Your task to perform on an android device: open a bookmark in the chrome app Image 0: 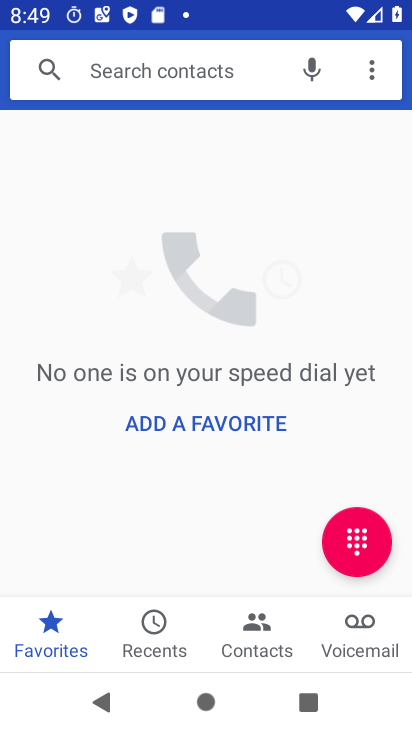
Step 0: press home button
Your task to perform on an android device: open a bookmark in the chrome app Image 1: 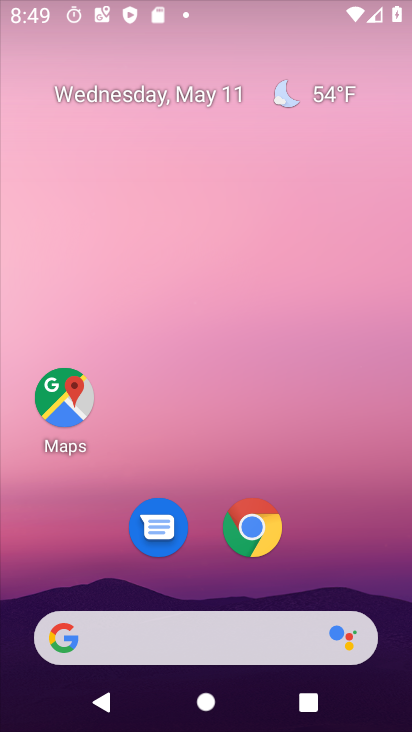
Step 1: drag from (208, 573) to (190, 209)
Your task to perform on an android device: open a bookmark in the chrome app Image 2: 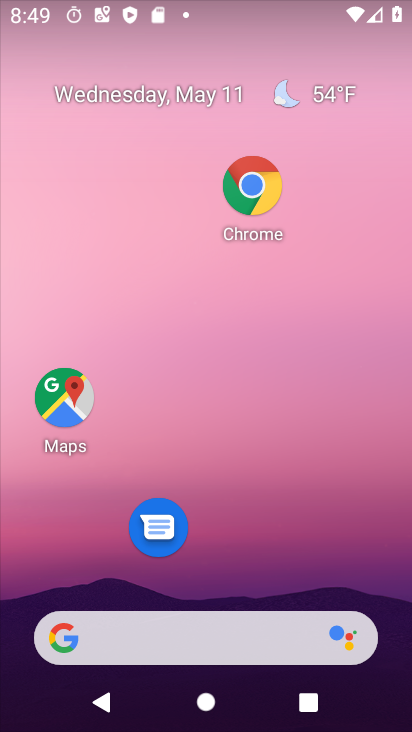
Step 2: click (254, 188)
Your task to perform on an android device: open a bookmark in the chrome app Image 3: 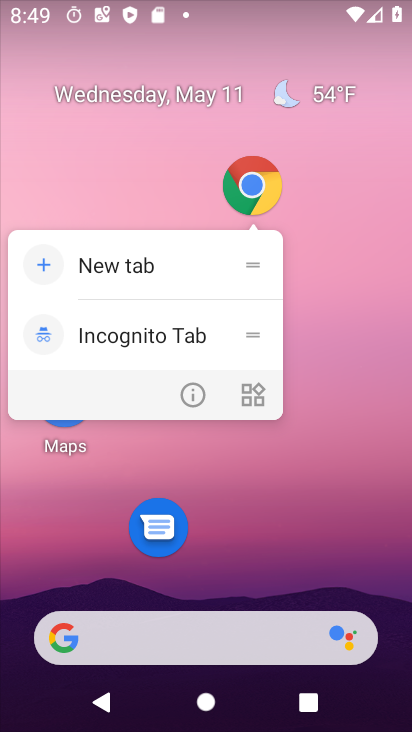
Step 3: click (253, 191)
Your task to perform on an android device: open a bookmark in the chrome app Image 4: 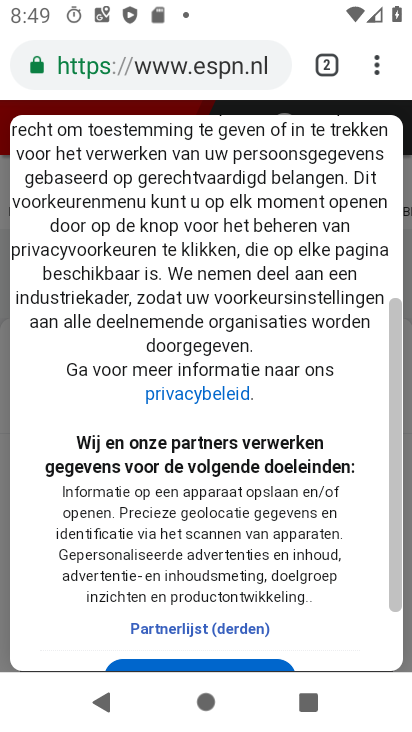
Step 4: click (370, 56)
Your task to perform on an android device: open a bookmark in the chrome app Image 5: 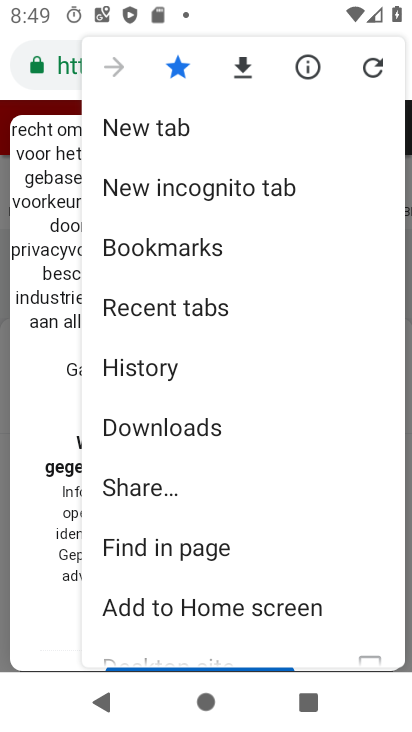
Step 5: click (175, 242)
Your task to perform on an android device: open a bookmark in the chrome app Image 6: 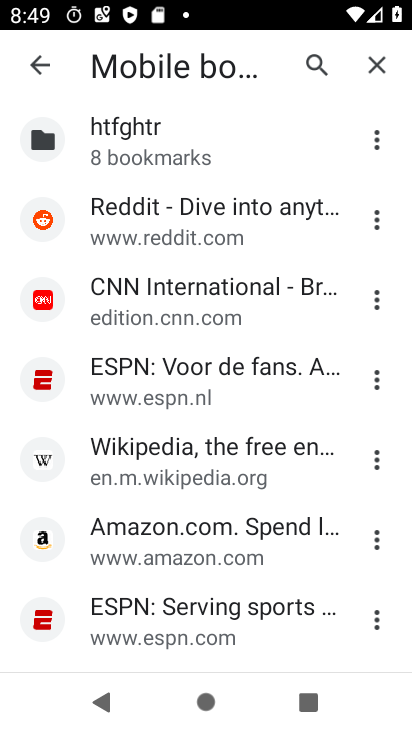
Step 6: click (170, 298)
Your task to perform on an android device: open a bookmark in the chrome app Image 7: 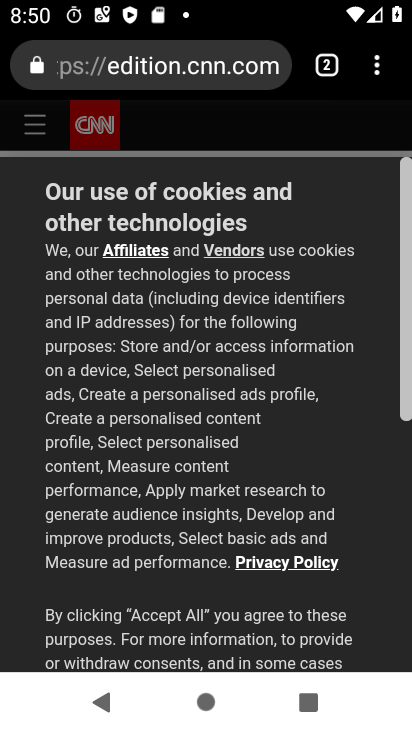
Step 7: task complete